Your task to perform on an android device: Open accessibility settings Image 0: 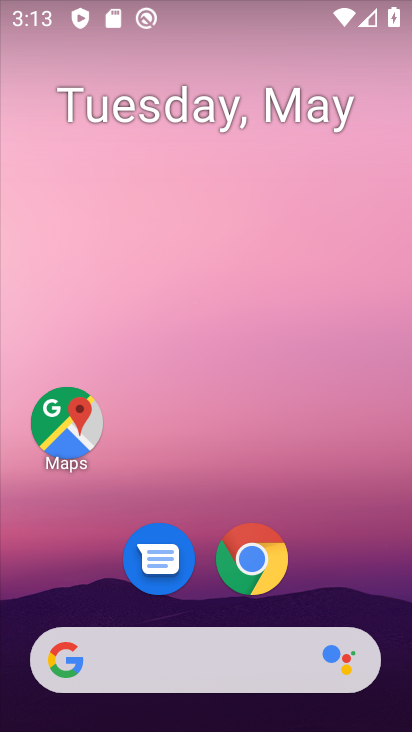
Step 0: drag from (328, 562) to (302, 172)
Your task to perform on an android device: Open accessibility settings Image 1: 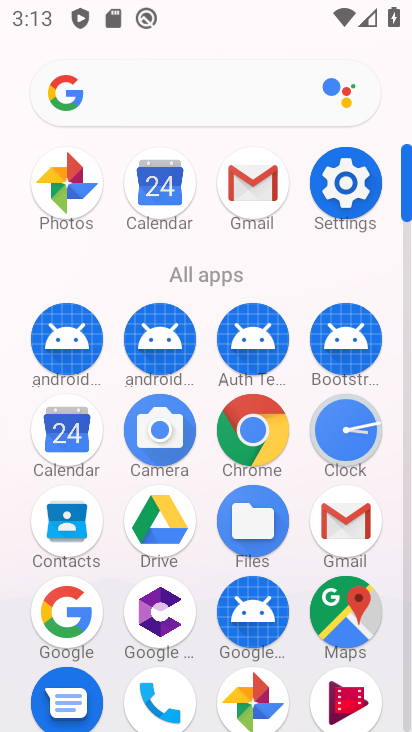
Step 1: click (345, 182)
Your task to perform on an android device: Open accessibility settings Image 2: 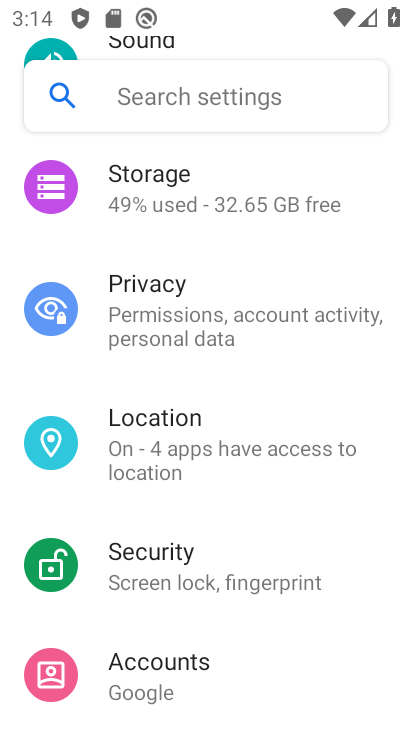
Step 2: drag from (139, 510) to (189, 347)
Your task to perform on an android device: Open accessibility settings Image 3: 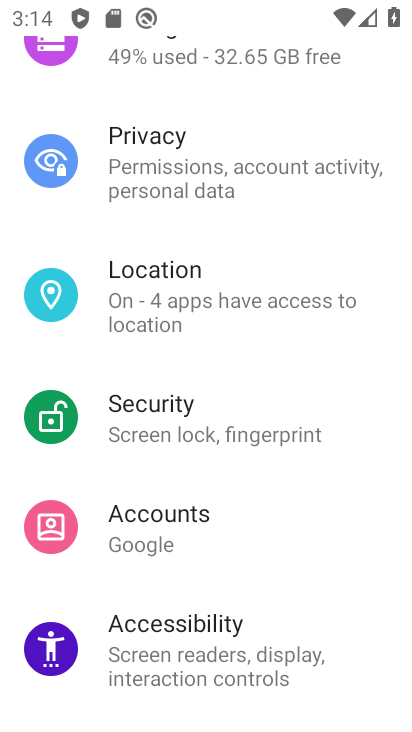
Step 3: drag from (145, 490) to (226, 341)
Your task to perform on an android device: Open accessibility settings Image 4: 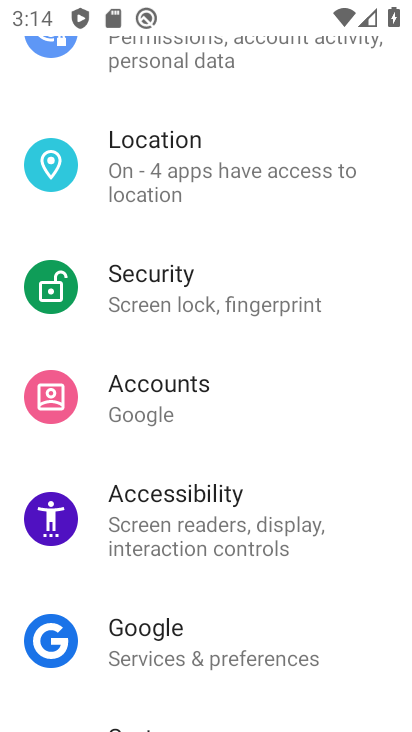
Step 4: click (173, 507)
Your task to perform on an android device: Open accessibility settings Image 5: 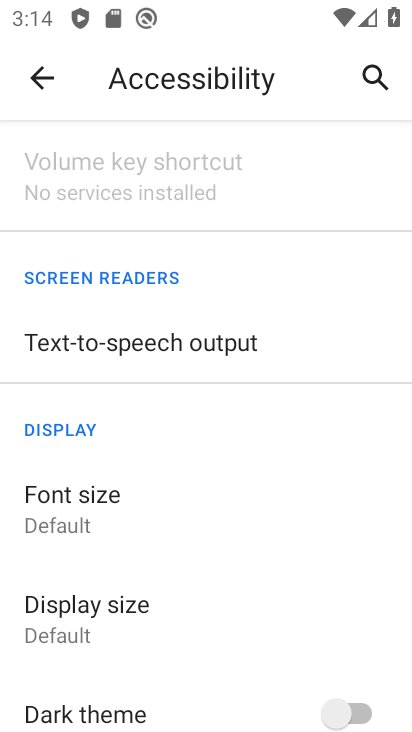
Step 5: task complete